Your task to perform on an android device: Open Reddit.com Image 0: 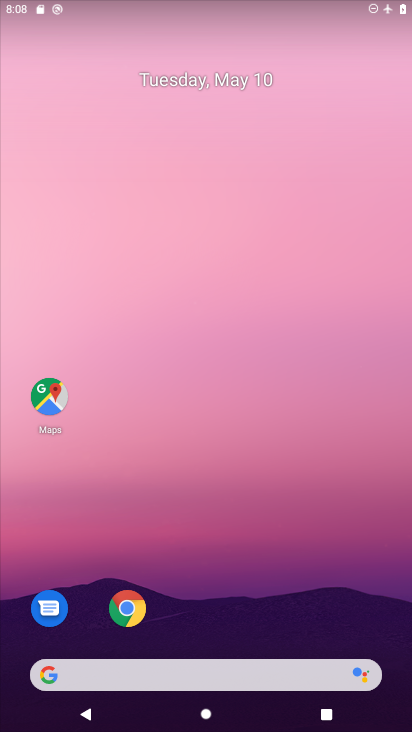
Step 0: drag from (254, 440) to (264, 225)
Your task to perform on an android device: Open Reddit.com Image 1: 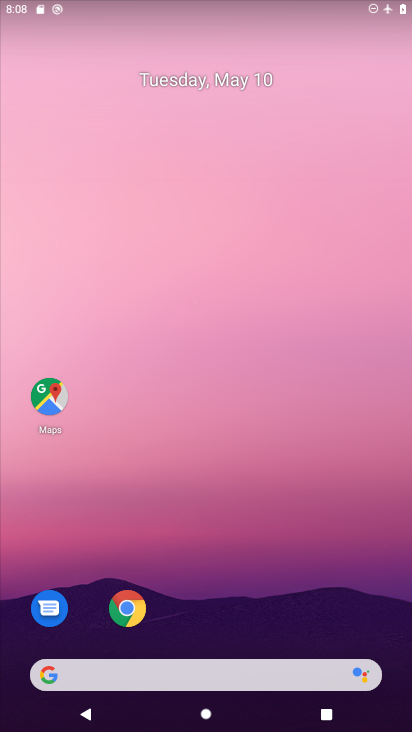
Step 1: drag from (230, 589) to (224, 258)
Your task to perform on an android device: Open Reddit.com Image 2: 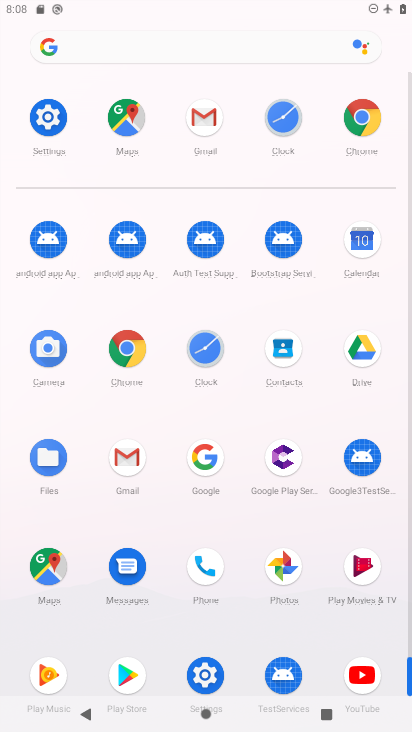
Step 2: click (132, 348)
Your task to perform on an android device: Open Reddit.com Image 3: 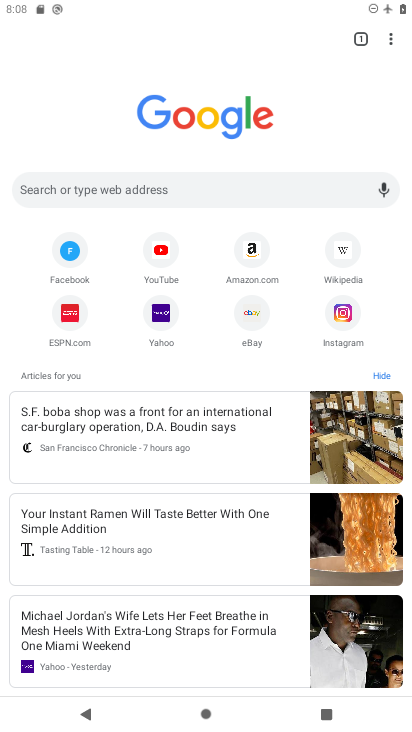
Step 3: click (158, 178)
Your task to perform on an android device: Open Reddit.com Image 4: 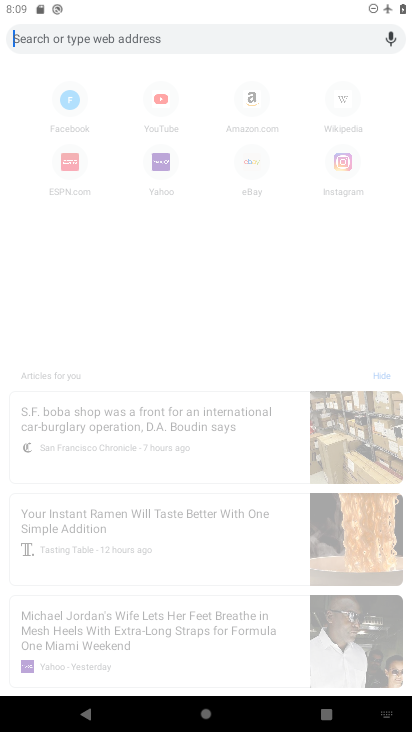
Step 4: click (254, 31)
Your task to perform on an android device: Open Reddit.com Image 5: 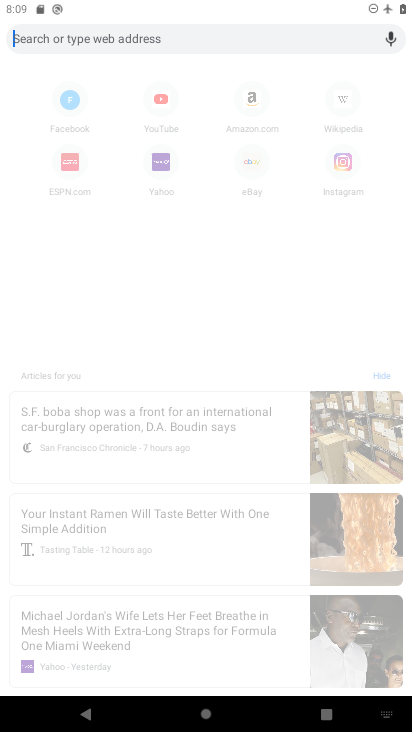
Step 5: click (267, 31)
Your task to perform on an android device: Open Reddit.com Image 6: 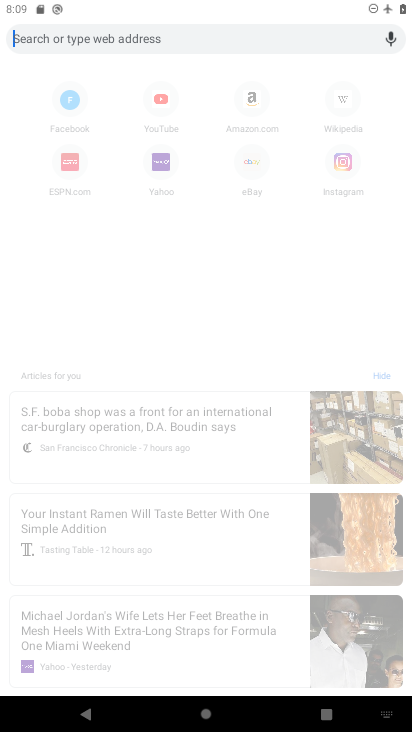
Step 6: click (258, 31)
Your task to perform on an android device: Open Reddit.com Image 7: 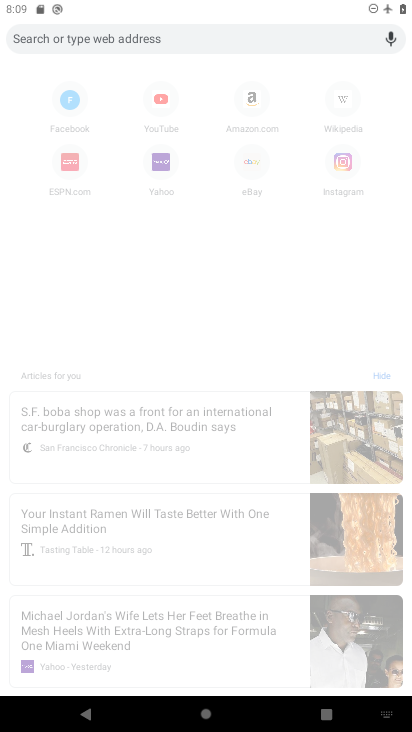
Step 7: type " Reddit.com"
Your task to perform on an android device: Open Reddit.com Image 8: 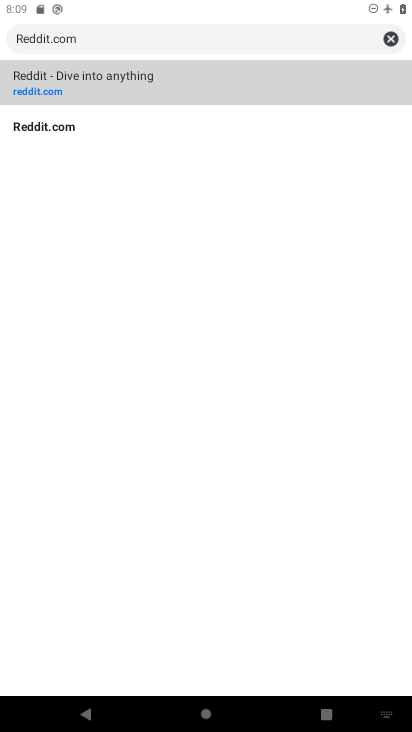
Step 8: click (52, 128)
Your task to perform on an android device: Open Reddit.com Image 9: 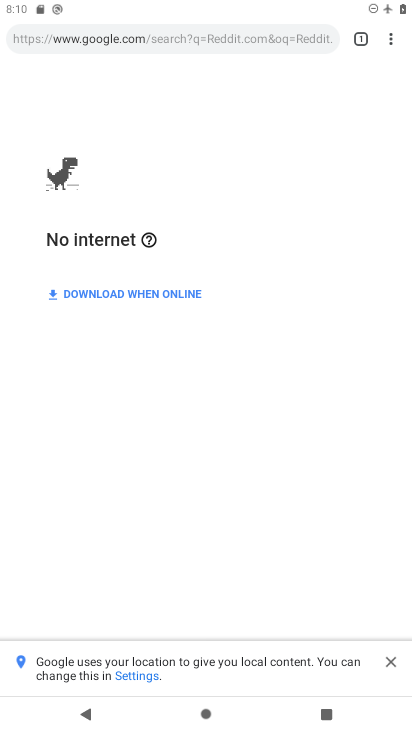
Step 9: task complete